Your task to perform on an android device: toggle wifi Image 0: 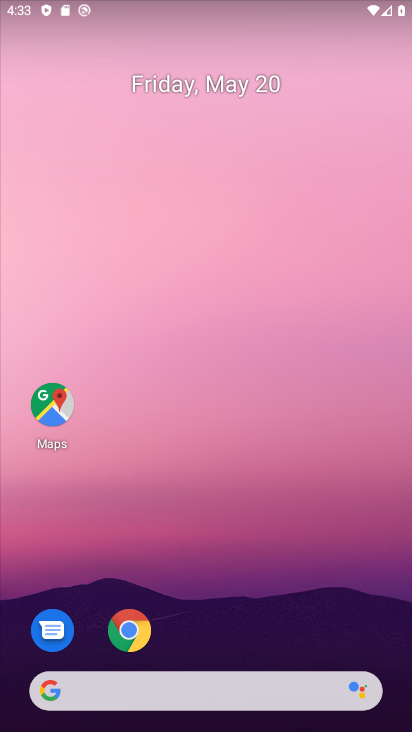
Step 0: drag from (277, 559) to (249, 32)
Your task to perform on an android device: toggle wifi Image 1: 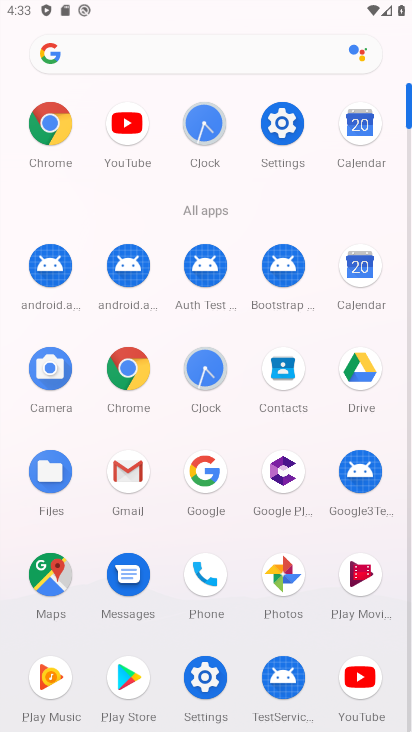
Step 1: click (283, 127)
Your task to perform on an android device: toggle wifi Image 2: 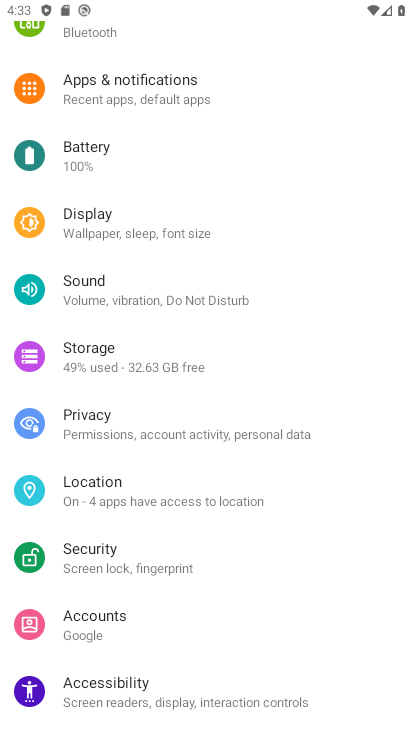
Step 2: drag from (252, 125) to (257, 487)
Your task to perform on an android device: toggle wifi Image 3: 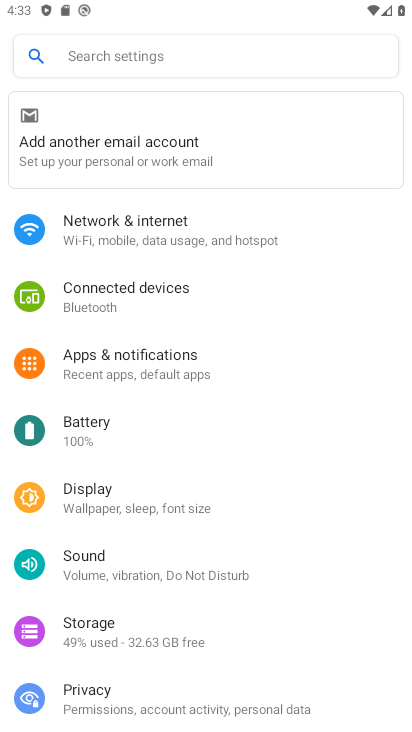
Step 3: click (201, 234)
Your task to perform on an android device: toggle wifi Image 4: 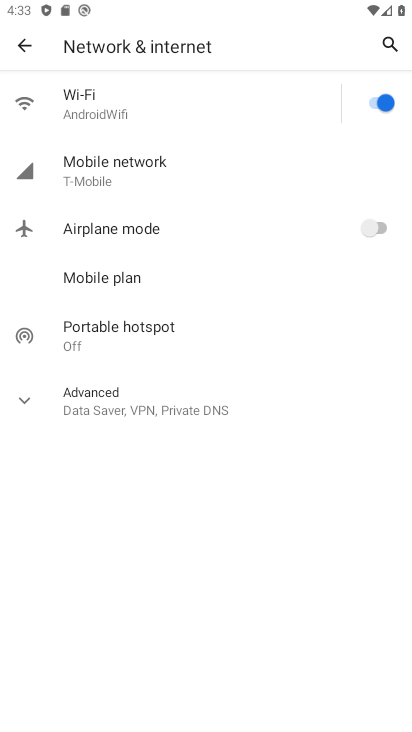
Step 4: click (366, 96)
Your task to perform on an android device: toggle wifi Image 5: 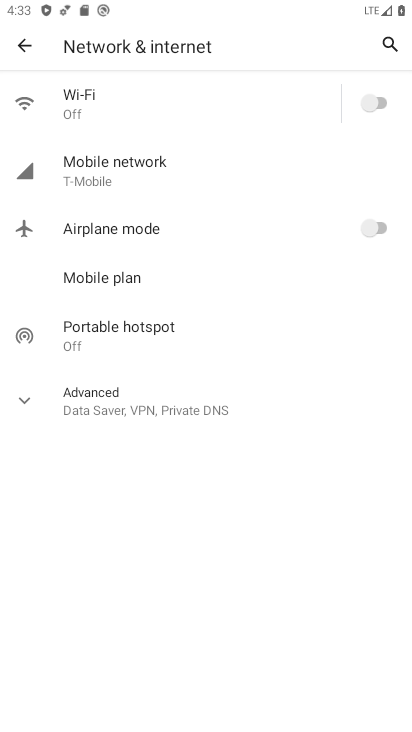
Step 5: task complete